Your task to perform on an android device: change notifications settings Image 0: 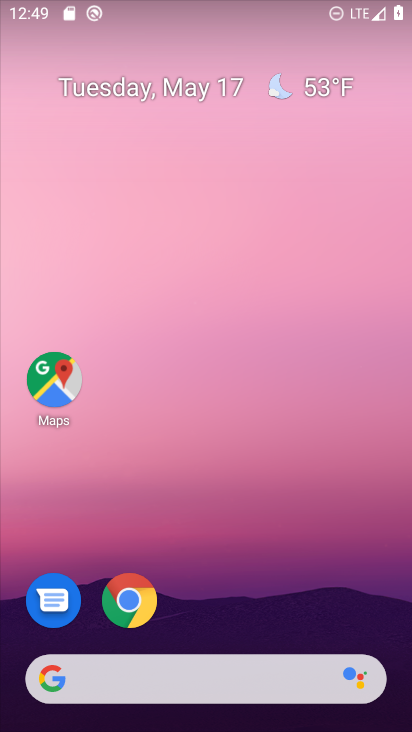
Step 0: drag from (211, 602) to (148, 20)
Your task to perform on an android device: change notifications settings Image 1: 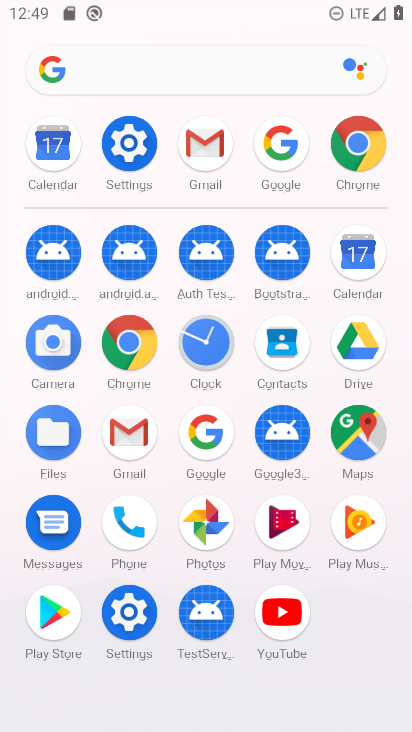
Step 1: click (134, 143)
Your task to perform on an android device: change notifications settings Image 2: 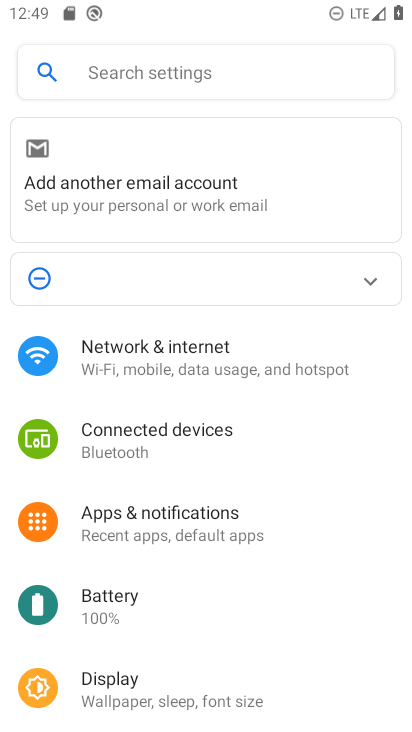
Step 2: click (159, 536)
Your task to perform on an android device: change notifications settings Image 3: 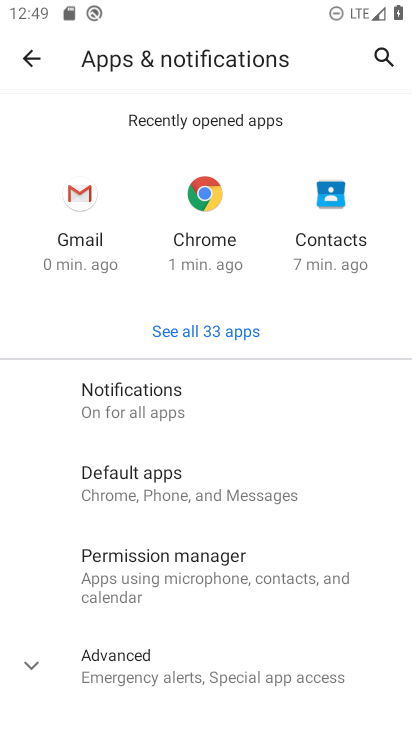
Step 3: click (165, 402)
Your task to perform on an android device: change notifications settings Image 4: 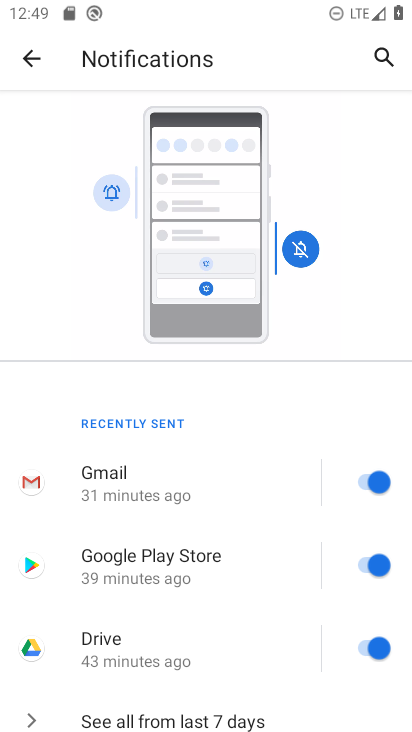
Step 4: drag from (199, 629) to (191, 188)
Your task to perform on an android device: change notifications settings Image 5: 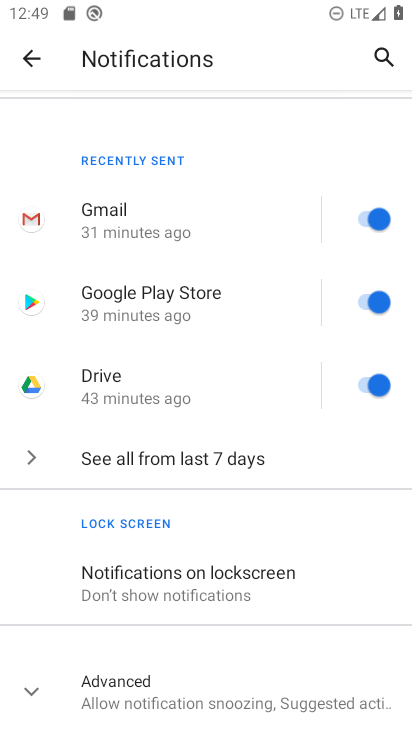
Step 5: click (188, 599)
Your task to perform on an android device: change notifications settings Image 6: 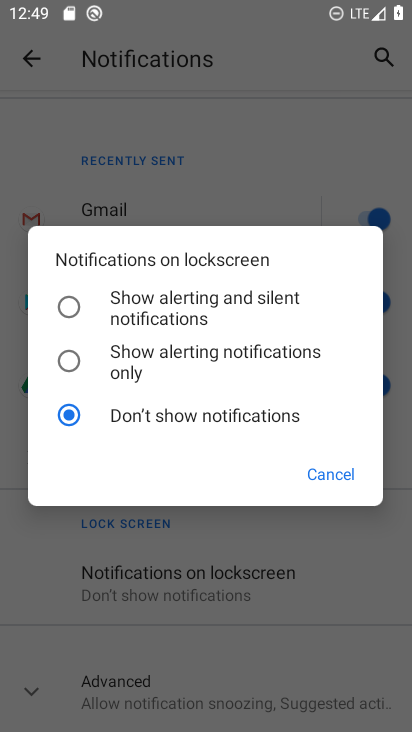
Step 6: task complete